Your task to perform on an android device: turn off smart reply in the gmail app Image 0: 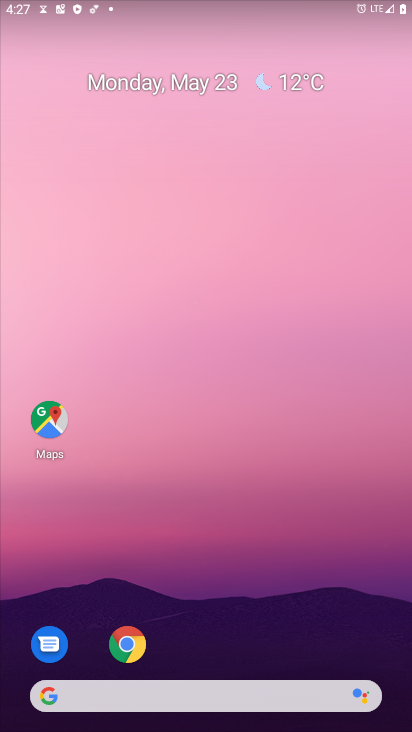
Step 0: drag from (263, 603) to (261, 167)
Your task to perform on an android device: turn off smart reply in the gmail app Image 1: 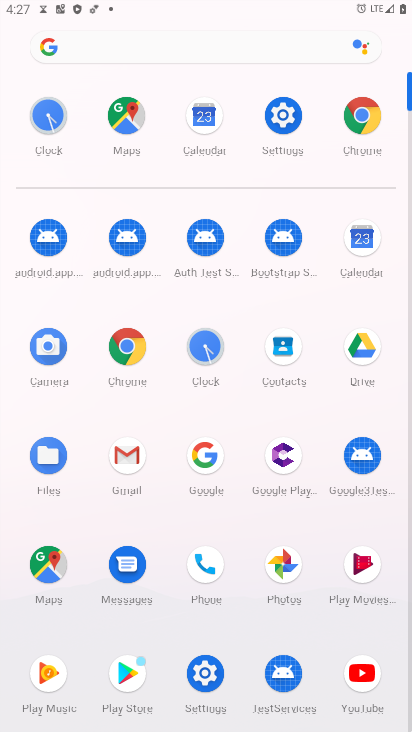
Step 1: click (130, 454)
Your task to perform on an android device: turn off smart reply in the gmail app Image 2: 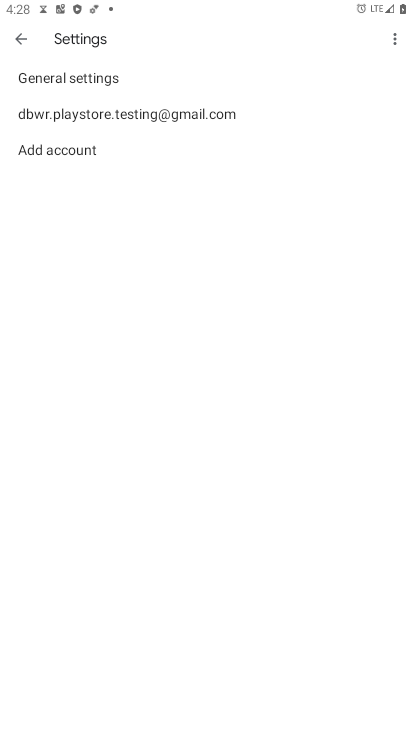
Step 2: click (235, 118)
Your task to perform on an android device: turn off smart reply in the gmail app Image 3: 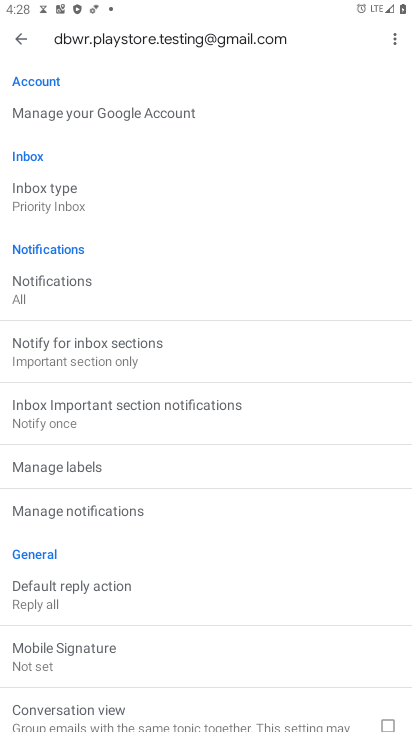
Step 3: drag from (170, 683) to (141, 0)
Your task to perform on an android device: turn off smart reply in the gmail app Image 4: 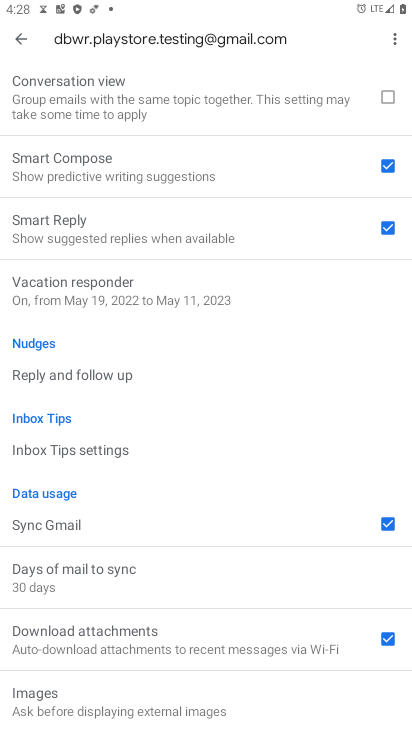
Step 4: click (389, 169)
Your task to perform on an android device: turn off smart reply in the gmail app Image 5: 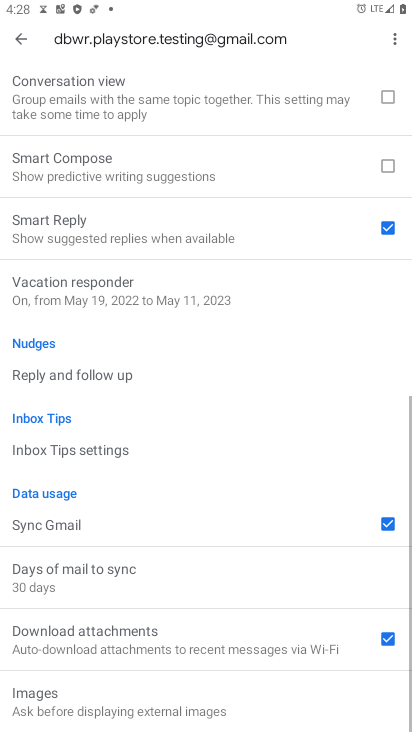
Step 5: task complete